Your task to perform on an android device: Open Google Maps Image 0: 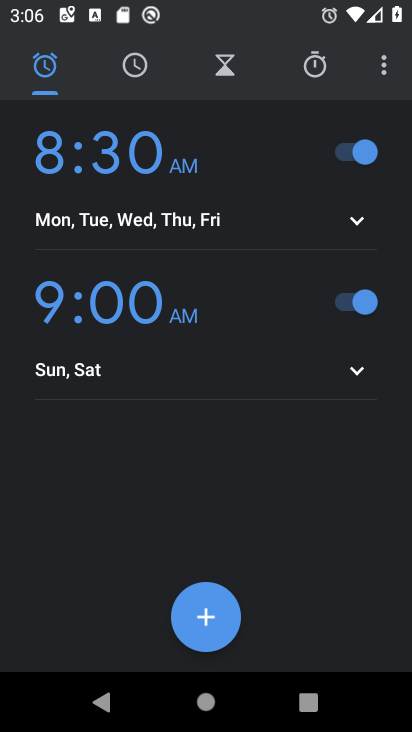
Step 0: press home button
Your task to perform on an android device: Open Google Maps Image 1: 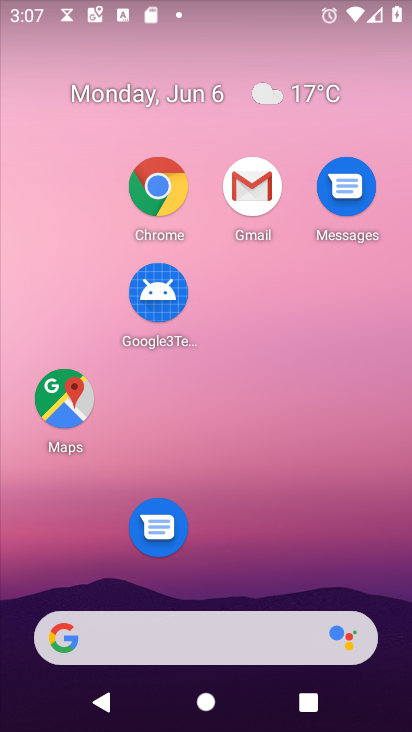
Step 1: click (80, 414)
Your task to perform on an android device: Open Google Maps Image 2: 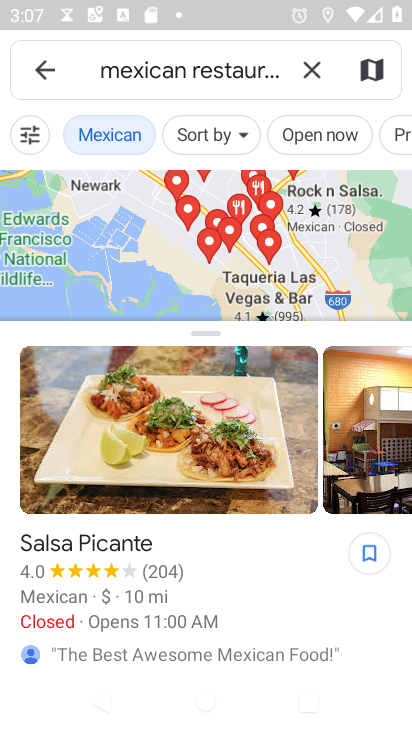
Step 2: task complete